Your task to perform on an android device: turn on the 12-hour format for clock Image 0: 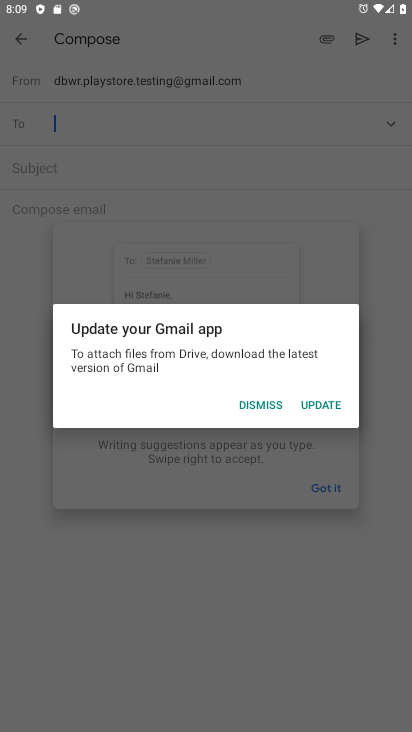
Step 0: press home button
Your task to perform on an android device: turn on the 12-hour format for clock Image 1: 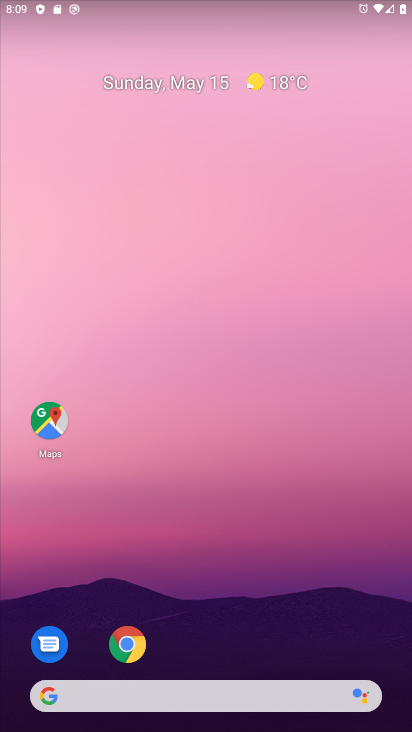
Step 1: drag from (212, 704) to (209, 281)
Your task to perform on an android device: turn on the 12-hour format for clock Image 2: 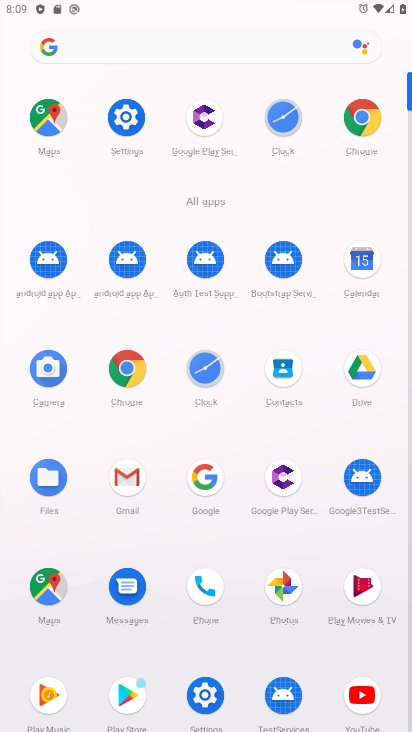
Step 2: click (117, 139)
Your task to perform on an android device: turn on the 12-hour format for clock Image 3: 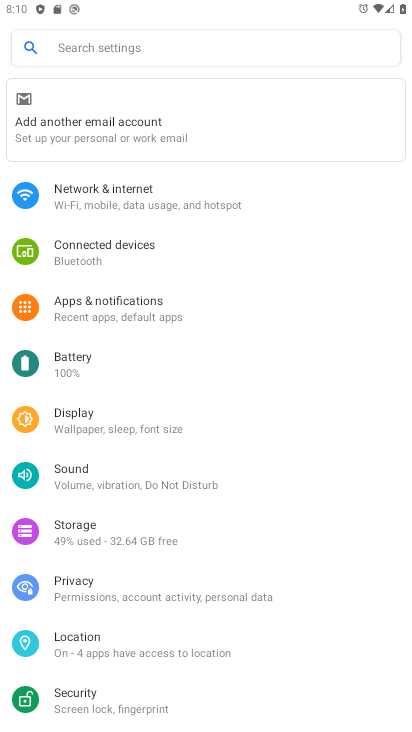
Step 3: drag from (133, 666) to (168, 90)
Your task to perform on an android device: turn on the 12-hour format for clock Image 4: 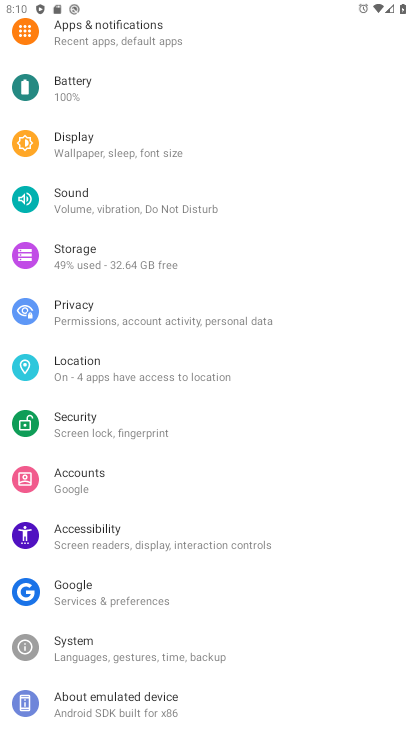
Step 4: click (90, 645)
Your task to perform on an android device: turn on the 12-hour format for clock Image 5: 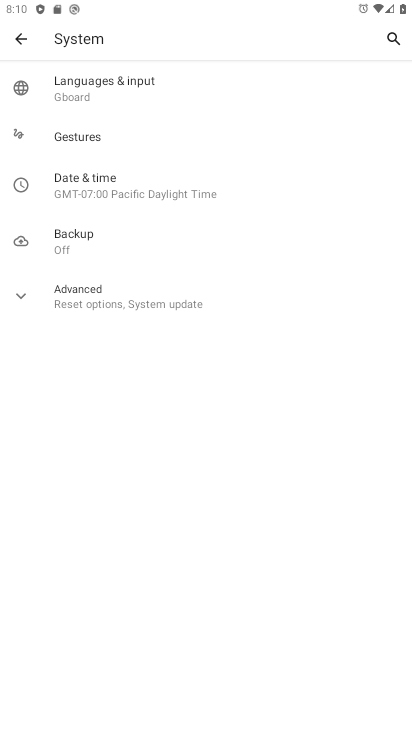
Step 5: click (107, 191)
Your task to perform on an android device: turn on the 12-hour format for clock Image 6: 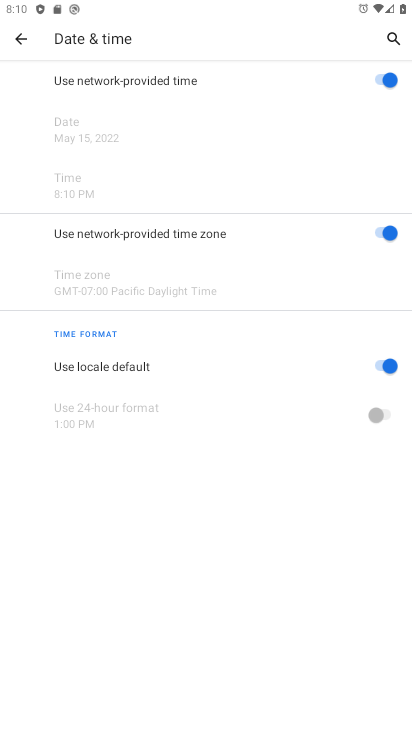
Step 6: task complete